Your task to perform on an android device: Open accessibility settings Image 0: 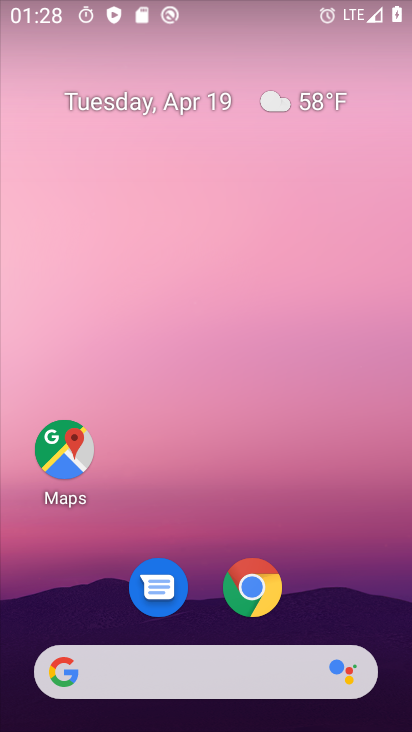
Step 0: drag from (342, 523) to (345, 248)
Your task to perform on an android device: Open accessibility settings Image 1: 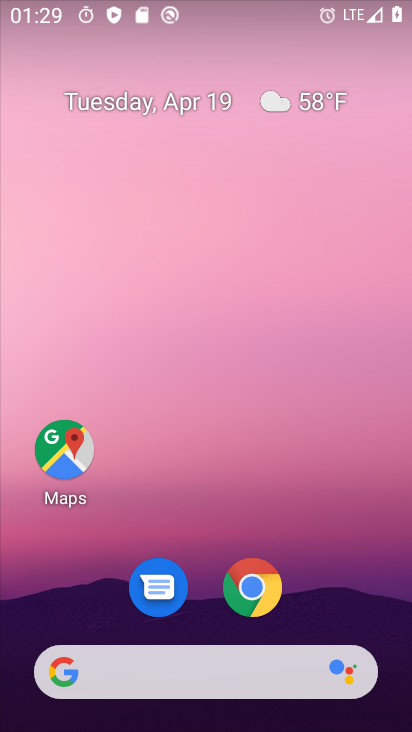
Step 1: drag from (361, 582) to (358, 226)
Your task to perform on an android device: Open accessibility settings Image 2: 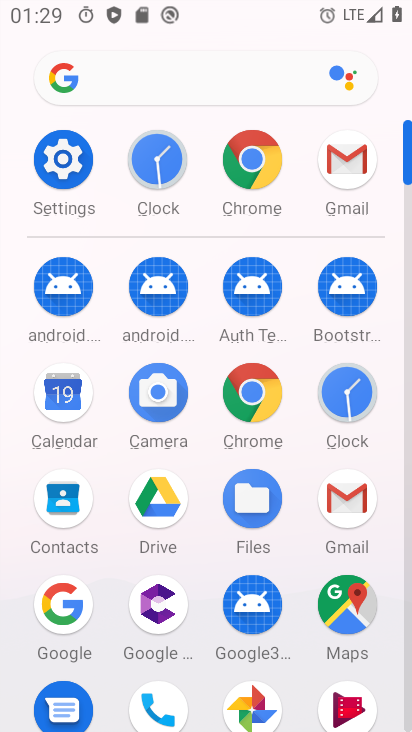
Step 2: click (51, 161)
Your task to perform on an android device: Open accessibility settings Image 3: 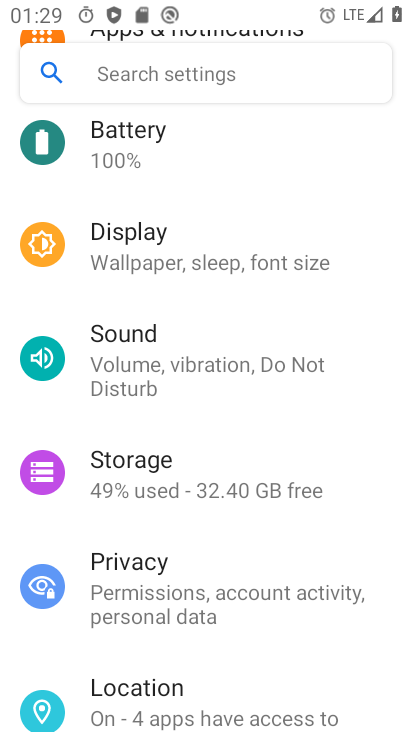
Step 3: drag from (265, 646) to (305, 263)
Your task to perform on an android device: Open accessibility settings Image 4: 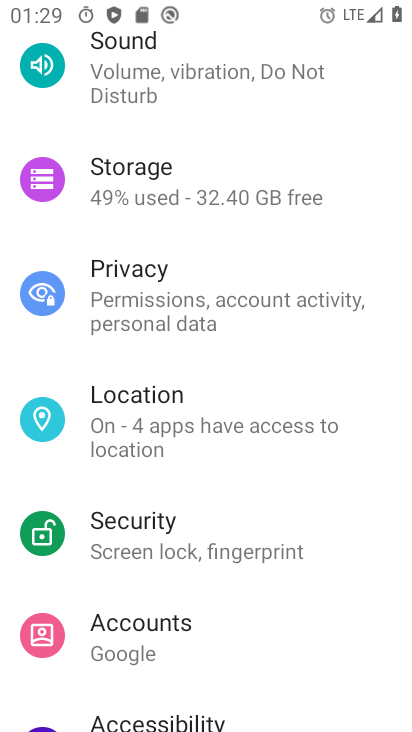
Step 4: drag from (236, 681) to (274, 344)
Your task to perform on an android device: Open accessibility settings Image 5: 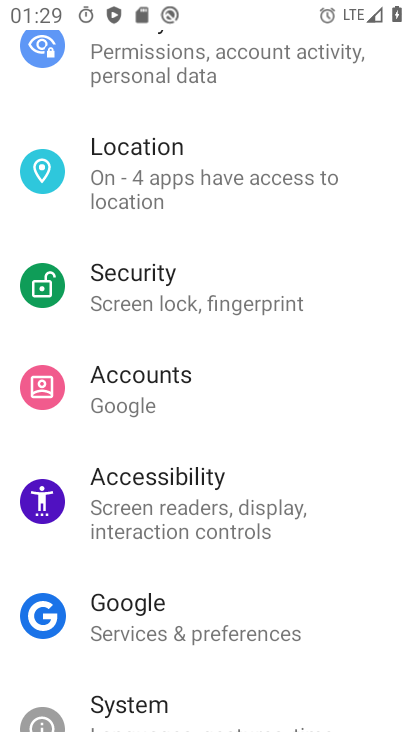
Step 5: click (165, 506)
Your task to perform on an android device: Open accessibility settings Image 6: 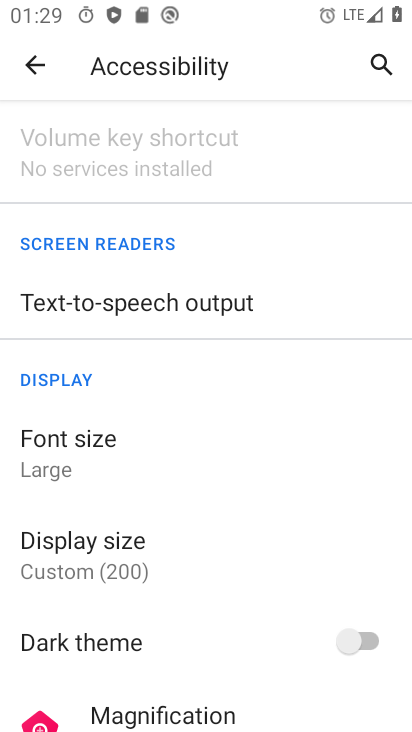
Step 6: task complete